Your task to perform on an android device: Go to wifi settings Image 0: 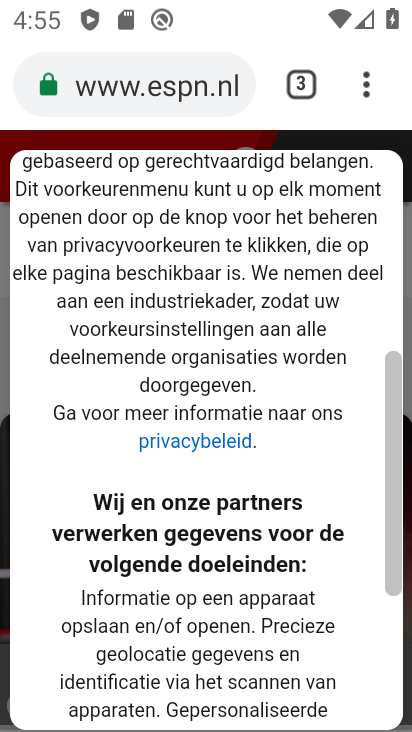
Step 0: press home button
Your task to perform on an android device: Go to wifi settings Image 1: 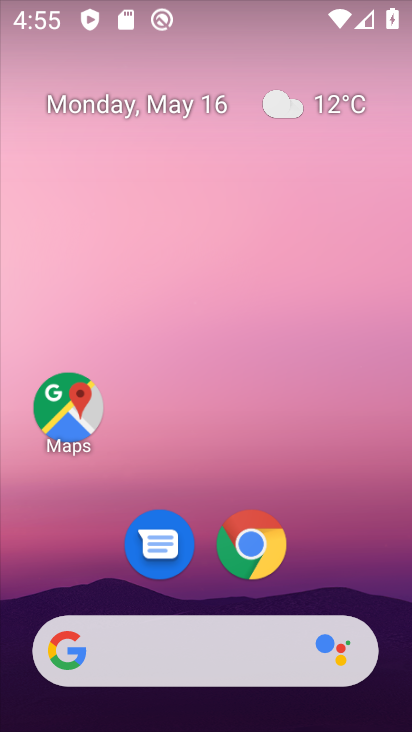
Step 1: drag from (316, 561) to (225, 150)
Your task to perform on an android device: Go to wifi settings Image 2: 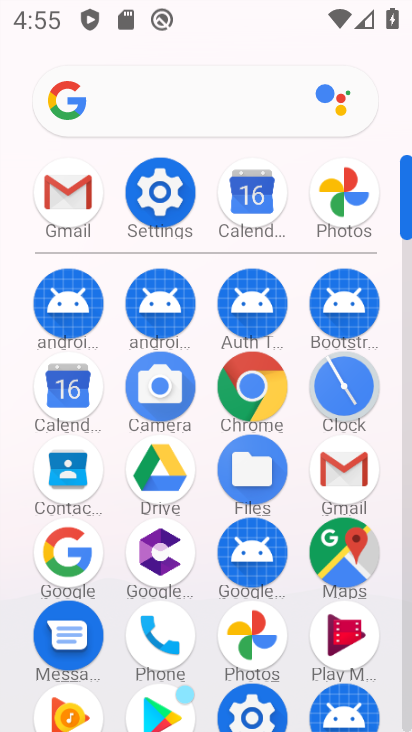
Step 2: click (157, 192)
Your task to perform on an android device: Go to wifi settings Image 3: 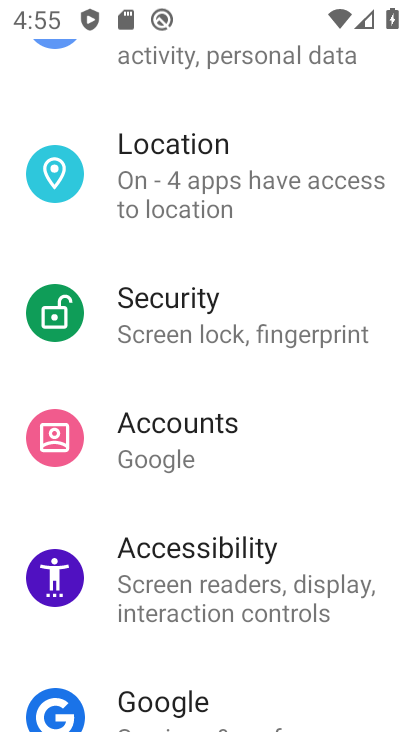
Step 3: drag from (229, 270) to (191, 430)
Your task to perform on an android device: Go to wifi settings Image 4: 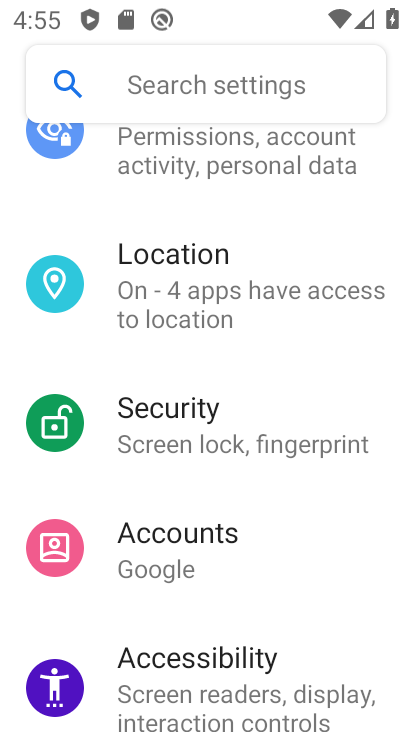
Step 4: drag from (243, 224) to (264, 391)
Your task to perform on an android device: Go to wifi settings Image 5: 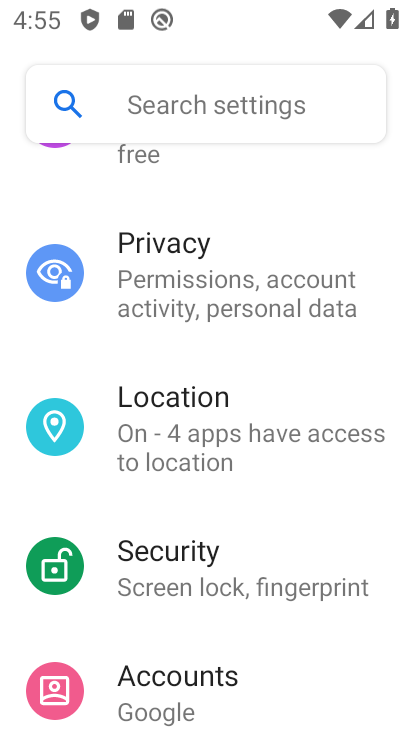
Step 5: drag from (252, 239) to (276, 398)
Your task to perform on an android device: Go to wifi settings Image 6: 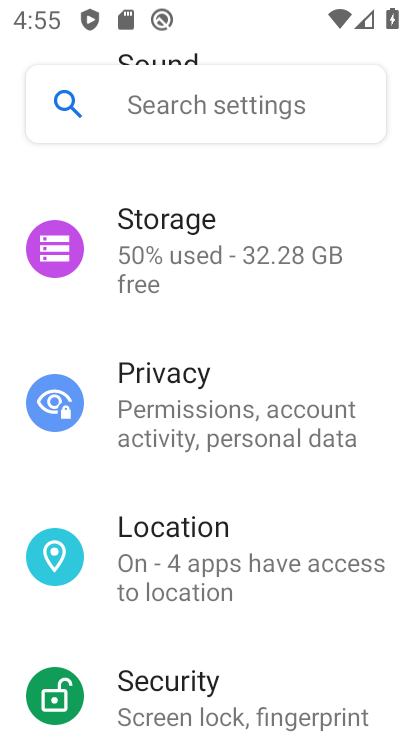
Step 6: drag from (242, 219) to (288, 402)
Your task to perform on an android device: Go to wifi settings Image 7: 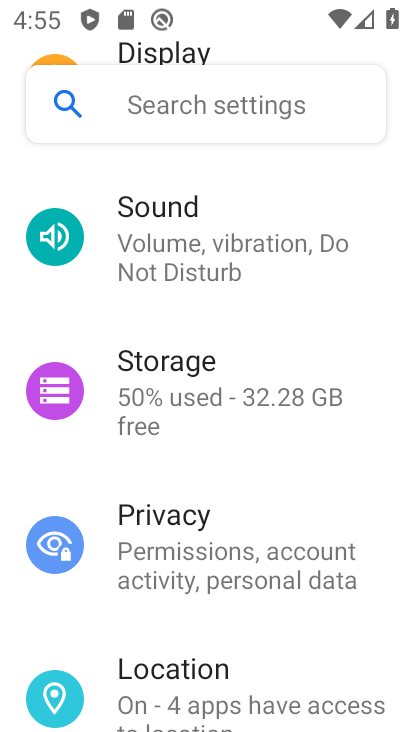
Step 7: drag from (229, 202) to (265, 355)
Your task to perform on an android device: Go to wifi settings Image 8: 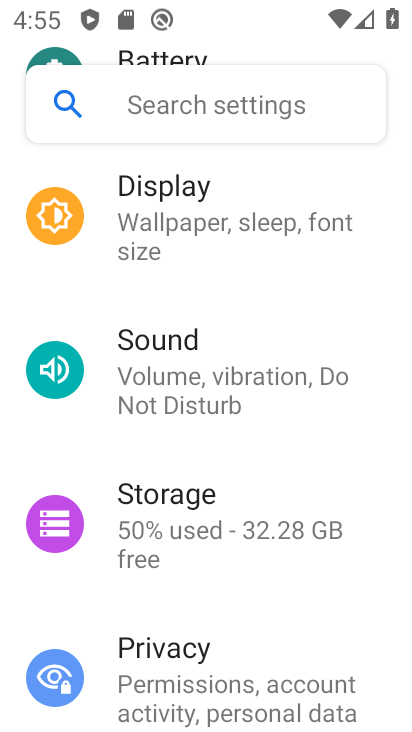
Step 8: drag from (236, 186) to (256, 318)
Your task to perform on an android device: Go to wifi settings Image 9: 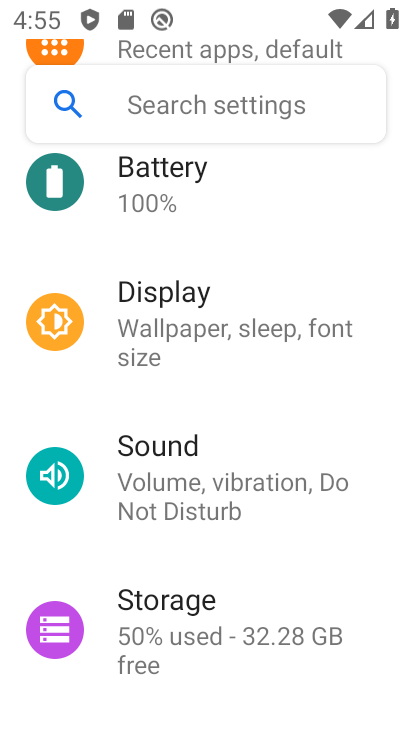
Step 9: drag from (265, 221) to (258, 353)
Your task to perform on an android device: Go to wifi settings Image 10: 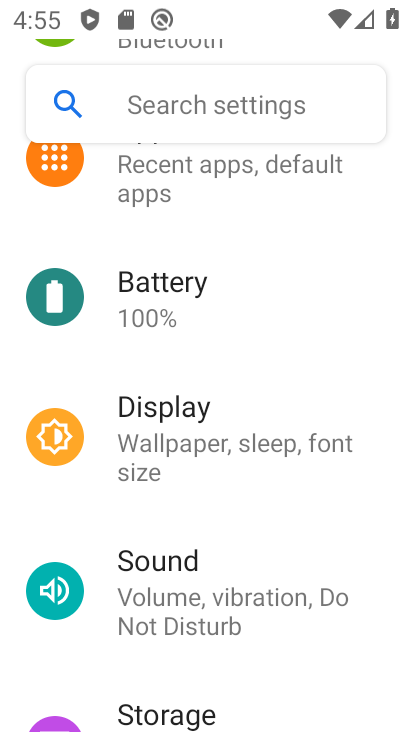
Step 10: drag from (241, 240) to (255, 393)
Your task to perform on an android device: Go to wifi settings Image 11: 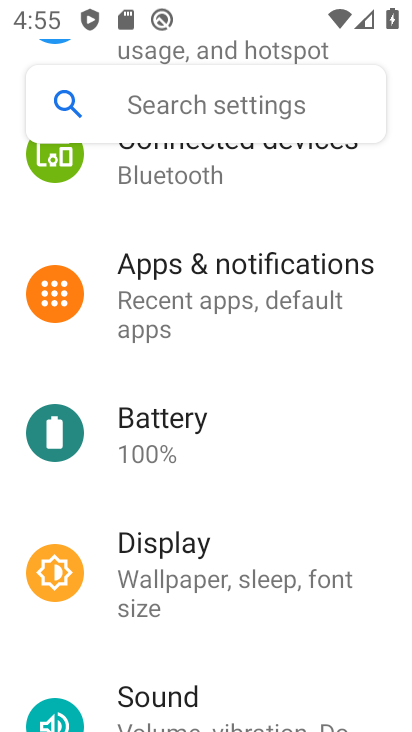
Step 11: drag from (286, 261) to (272, 422)
Your task to perform on an android device: Go to wifi settings Image 12: 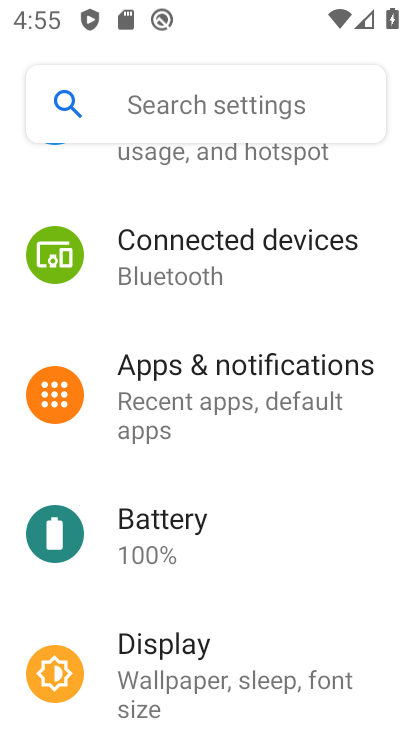
Step 12: drag from (285, 207) to (258, 407)
Your task to perform on an android device: Go to wifi settings Image 13: 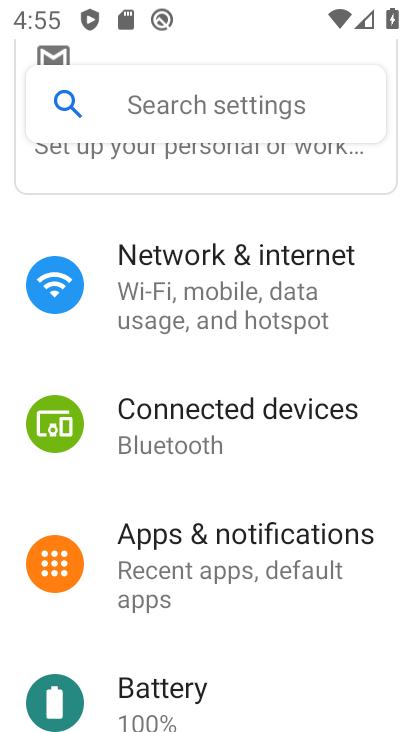
Step 13: click (235, 257)
Your task to perform on an android device: Go to wifi settings Image 14: 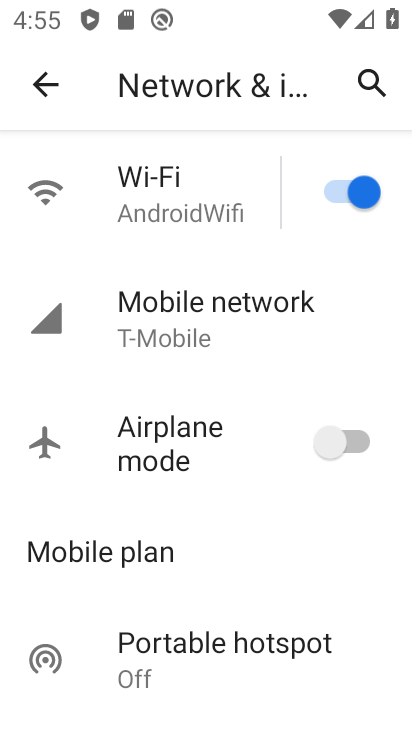
Step 14: click (139, 206)
Your task to perform on an android device: Go to wifi settings Image 15: 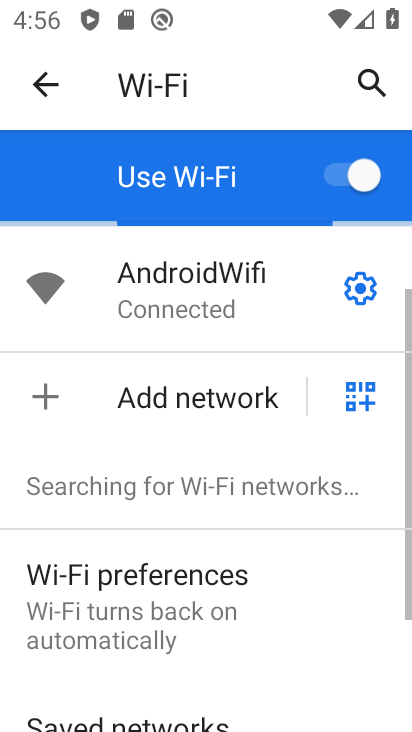
Step 15: click (364, 288)
Your task to perform on an android device: Go to wifi settings Image 16: 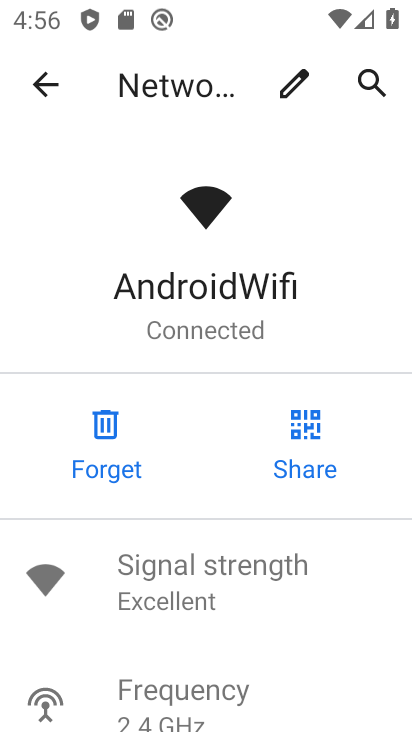
Step 16: task complete